Your task to perform on an android device: Open Youtube and go to "Your channel" Image 0: 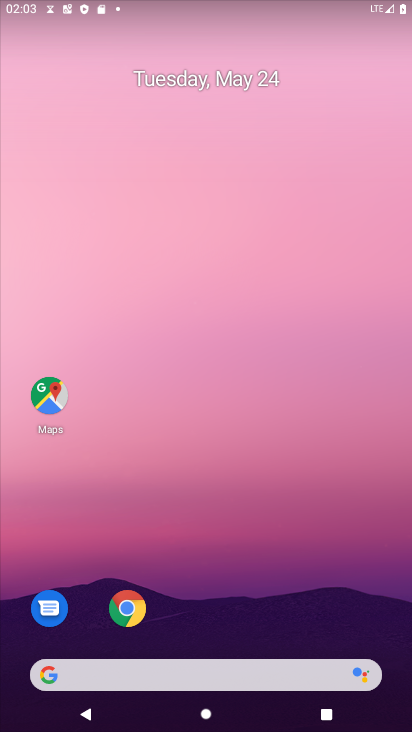
Step 0: drag from (271, 631) to (259, 179)
Your task to perform on an android device: Open Youtube and go to "Your channel" Image 1: 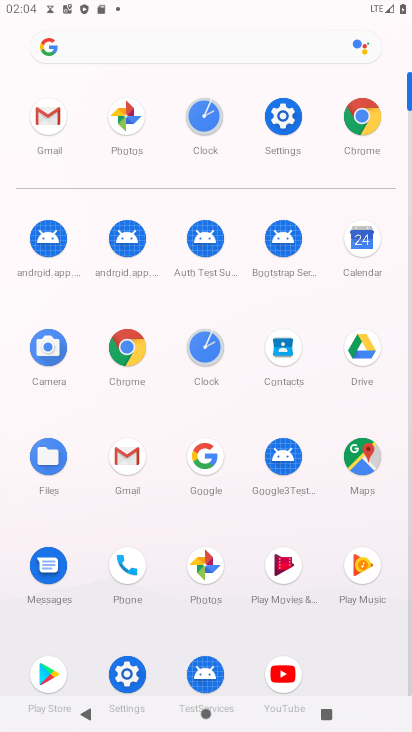
Step 1: click (286, 682)
Your task to perform on an android device: Open Youtube and go to "Your channel" Image 2: 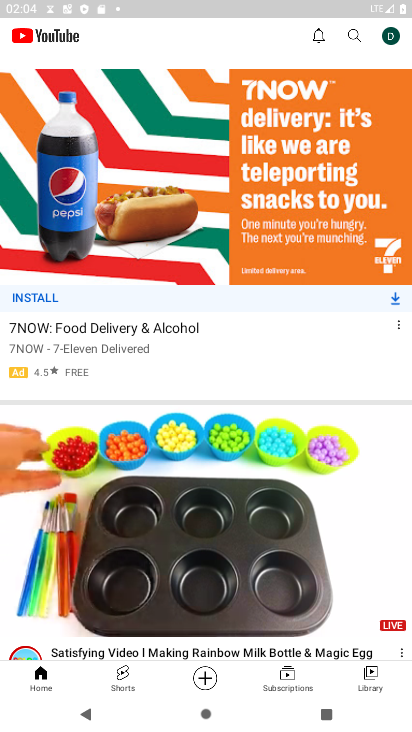
Step 2: click (382, 41)
Your task to perform on an android device: Open Youtube and go to "Your channel" Image 3: 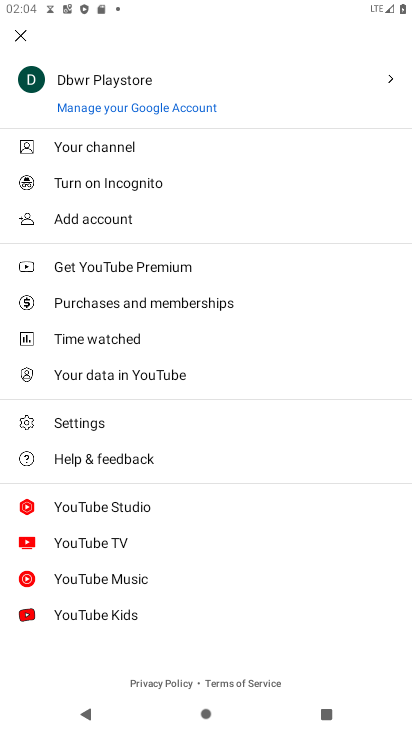
Step 3: click (149, 152)
Your task to perform on an android device: Open Youtube and go to "Your channel" Image 4: 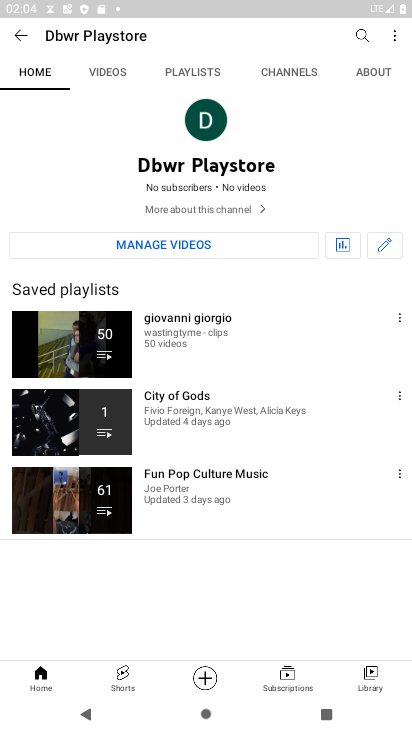
Step 4: task complete